Your task to perform on an android device: See recent photos Image 0: 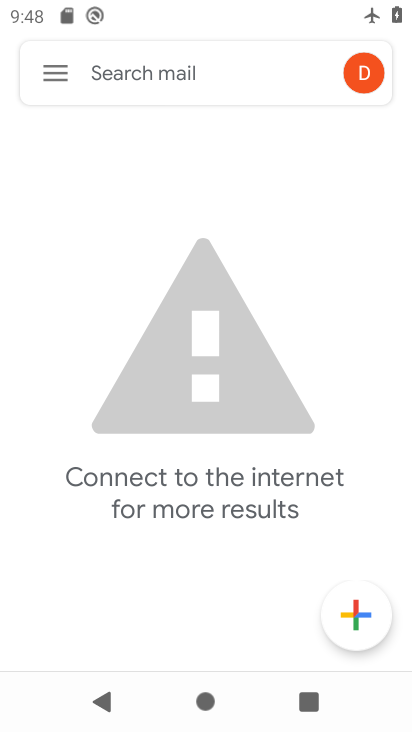
Step 0: press home button
Your task to perform on an android device: See recent photos Image 1: 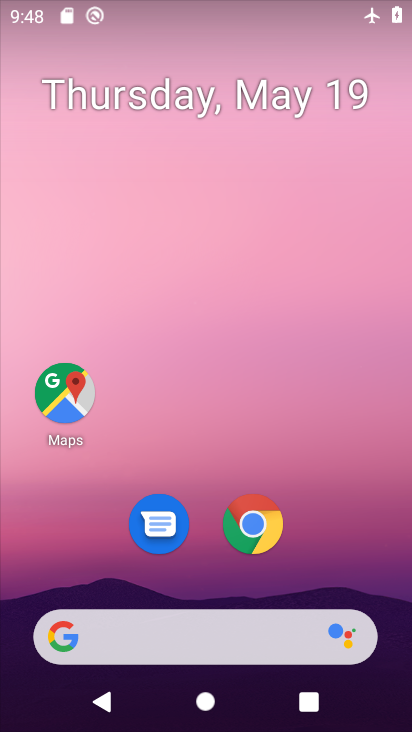
Step 1: drag from (330, 515) to (323, 21)
Your task to perform on an android device: See recent photos Image 2: 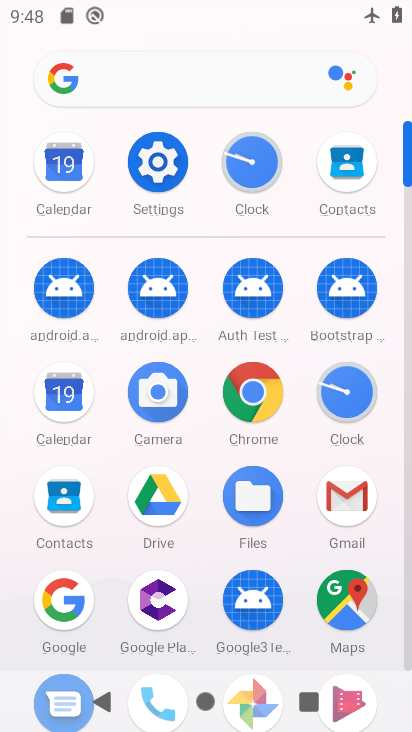
Step 2: drag from (301, 347) to (296, 85)
Your task to perform on an android device: See recent photos Image 3: 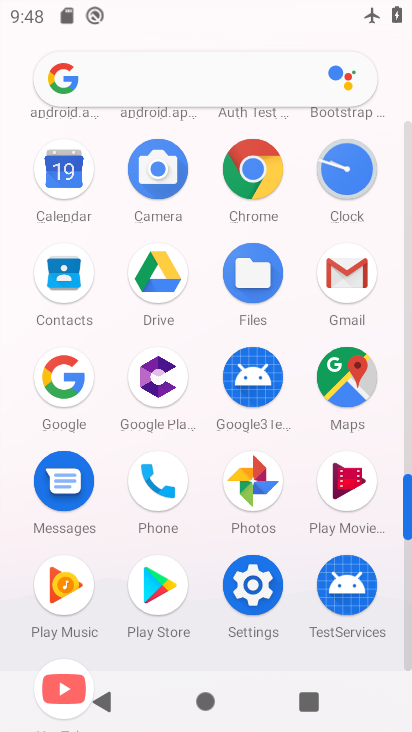
Step 3: click (251, 473)
Your task to perform on an android device: See recent photos Image 4: 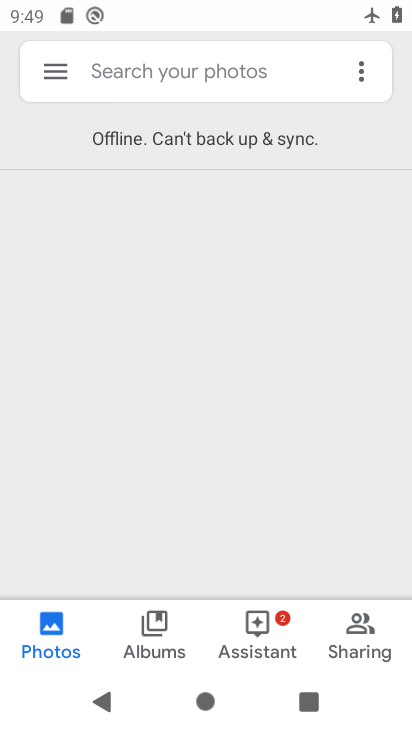
Step 4: task complete